Your task to perform on an android device: turn on translation in the chrome app Image 0: 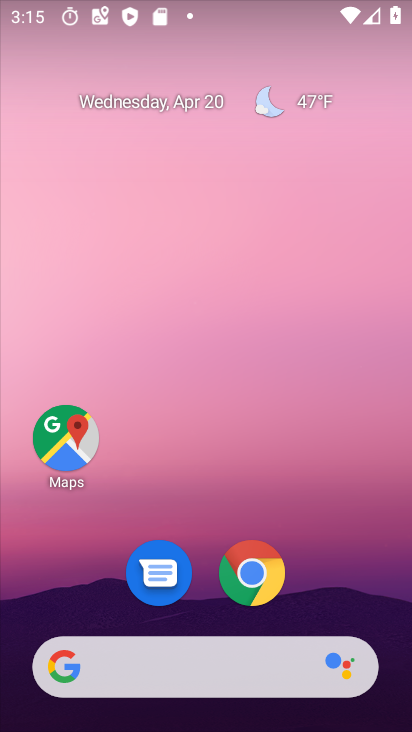
Step 0: click (244, 574)
Your task to perform on an android device: turn on translation in the chrome app Image 1: 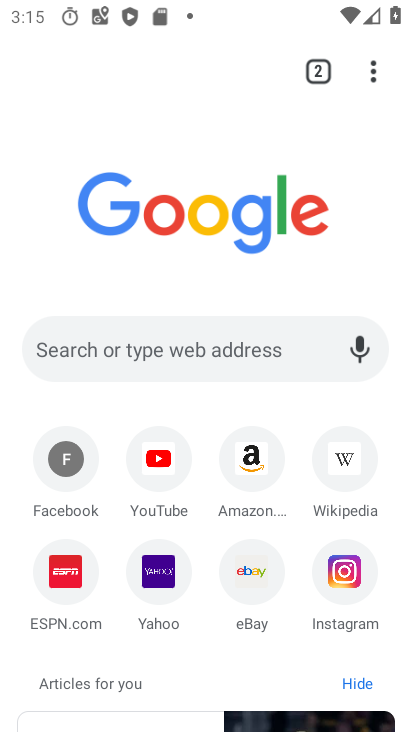
Step 1: click (372, 78)
Your task to perform on an android device: turn on translation in the chrome app Image 2: 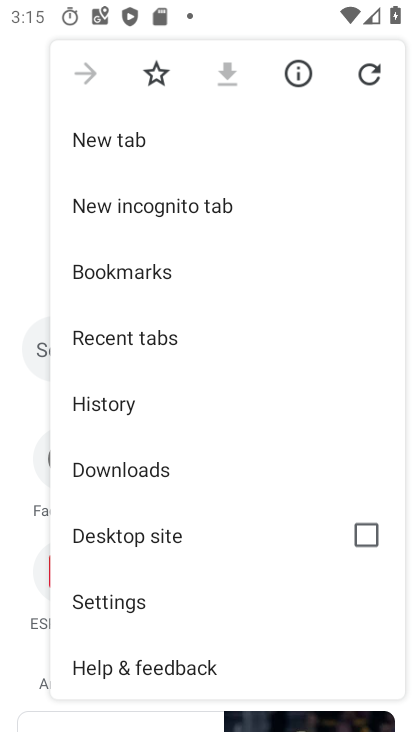
Step 2: click (94, 601)
Your task to perform on an android device: turn on translation in the chrome app Image 3: 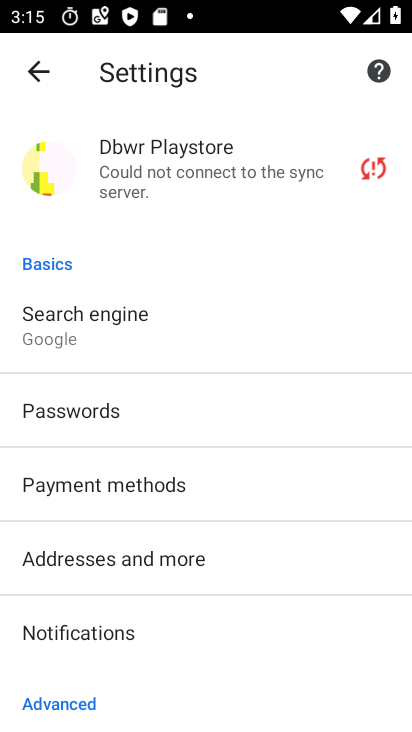
Step 3: drag from (144, 670) to (148, 267)
Your task to perform on an android device: turn on translation in the chrome app Image 4: 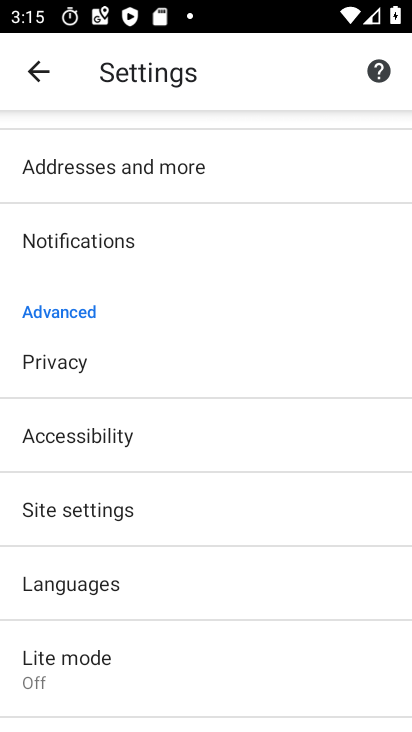
Step 4: click (89, 582)
Your task to perform on an android device: turn on translation in the chrome app Image 5: 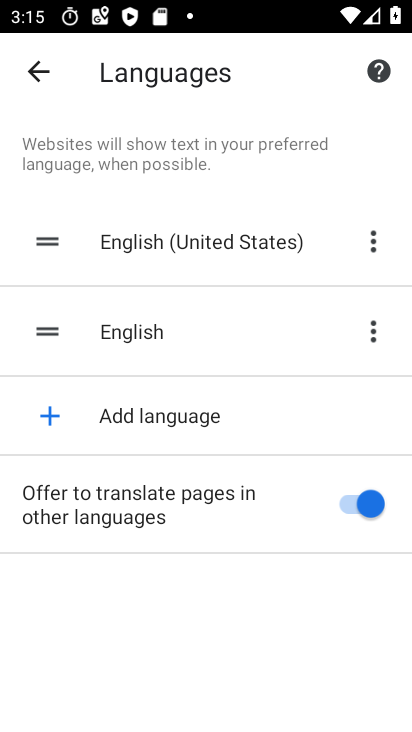
Step 5: task complete